Your task to perform on an android device: turn off wifi Image 0: 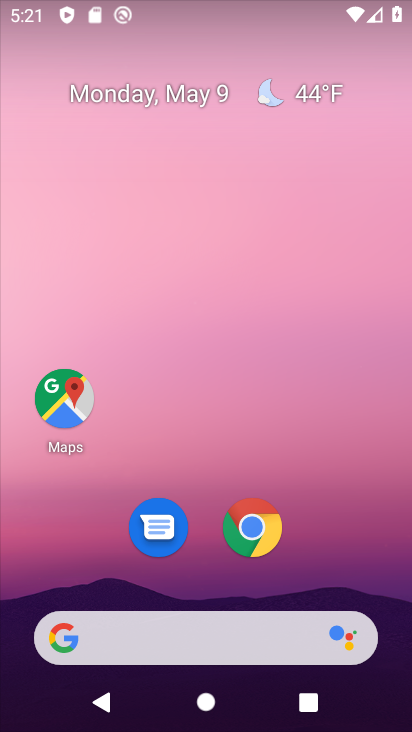
Step 0: drag from (328, 535) to (273, 4)
Your task to perform on an android device: turn off wifi Image 1: 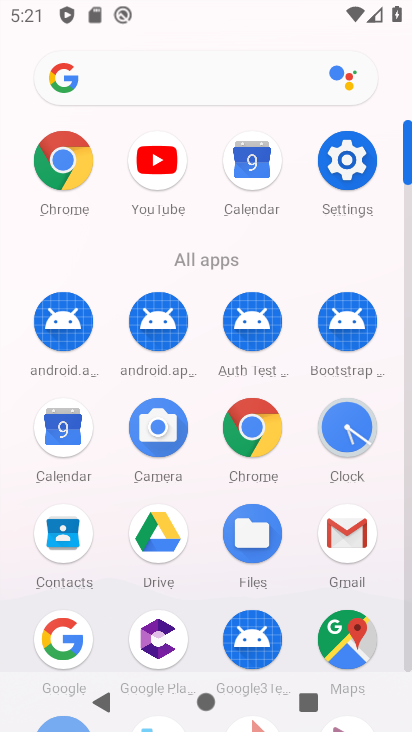
Step 1: click (345, 160)
Your task to perform on an android device: turn off wifi Image 2: 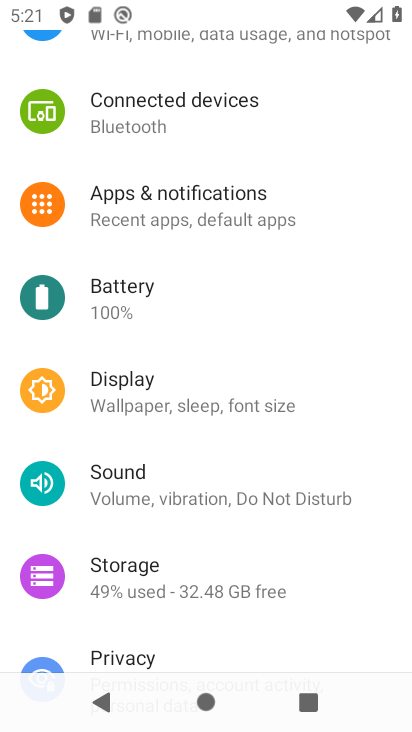
Step 2: drag from (232, 101) to (245, 565)
Your task to perform on an android device: turn off wifi Image 3: 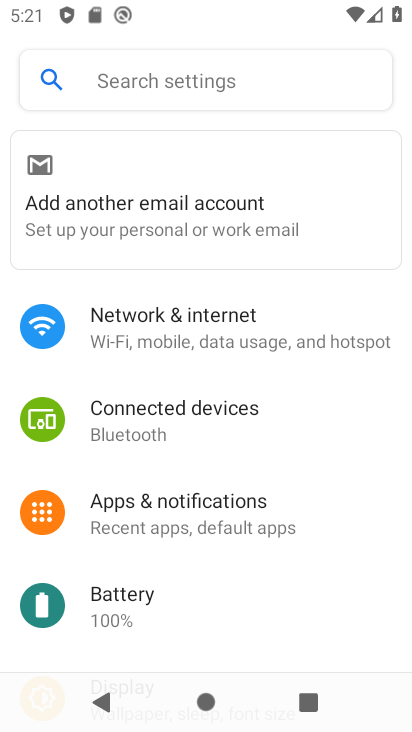
Step 3: click (230, 354)
Your task to perform on an android device: turn off wifi Image 4: 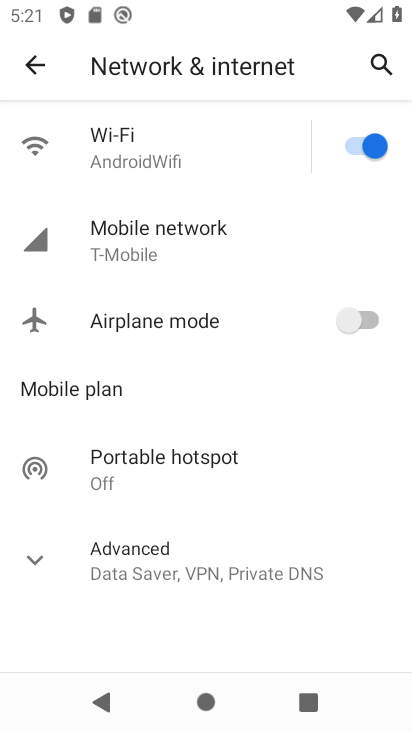
Step 4: click (70, 561)
Your task to perform on an android device: turn off wifi Image 5: 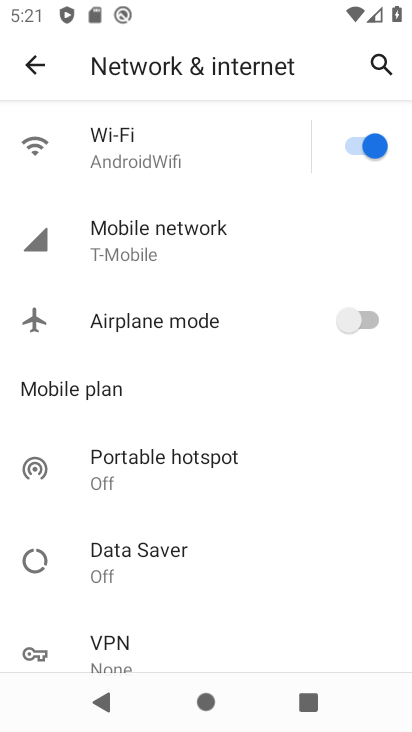
Step 5: click (376, 135)
Your task to perform on an android device: turn off wifi Image 6: 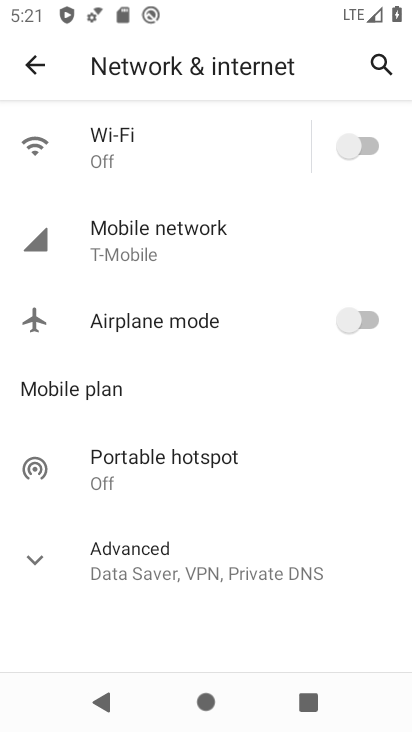
Step 6: task complete